Your task to perform on an android device: Open Wikipedia Image 0: 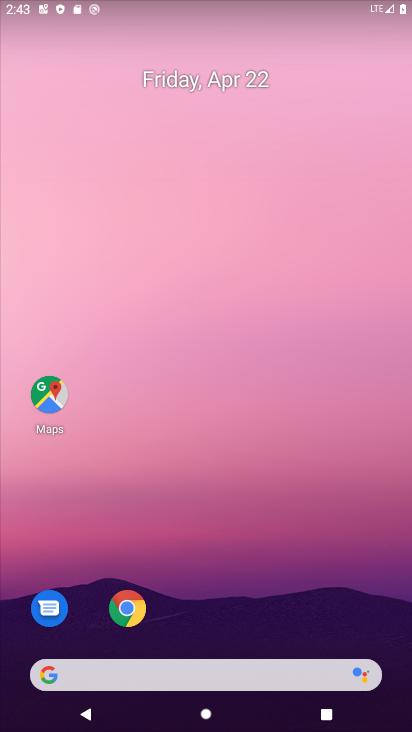
Step 0: drag from (272, 698) to (286, 162)
Your task to perform on an android device: Open Wikipedia Image 1: 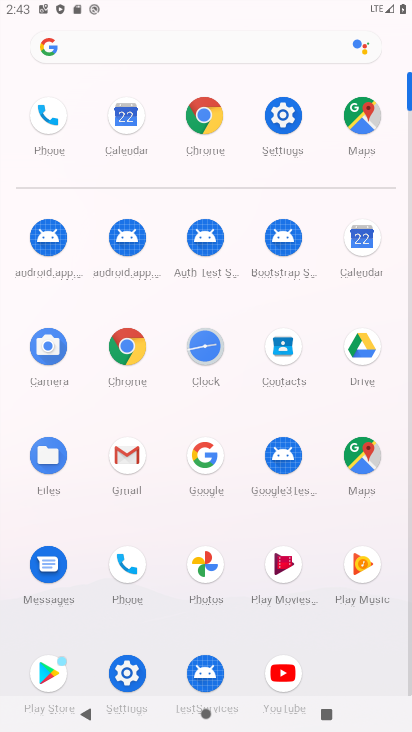
Step 1: click (198, 112)
Your task to perform on an android device: Open Wikipedia Image 2: 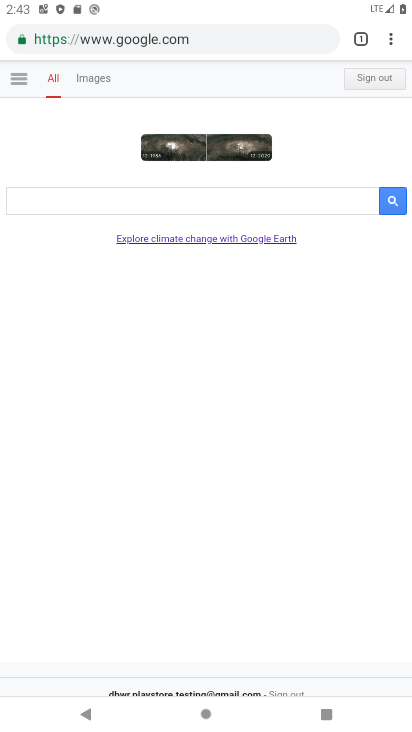
Step 2: click (390, 49)
Your task to perform on an android device: Open Wikipedia Image 3: 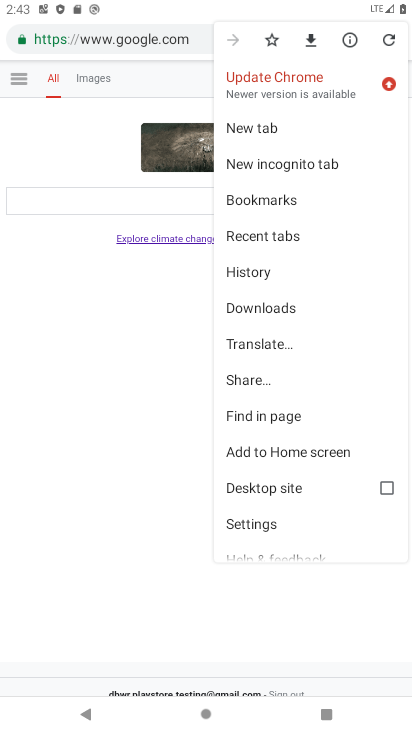
Step 3: click (115, 207)
Your task to perform on an android device: Open Wikipedia Image 4: 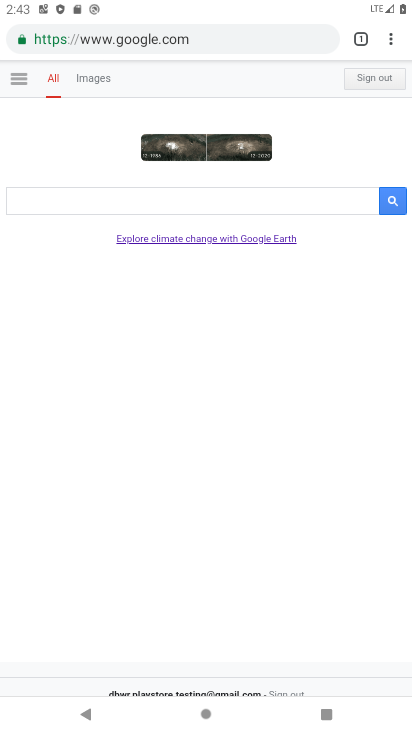
Step 4: click (115, 207)
Your task to perform on an android device: Open Wikipedia Image 5: 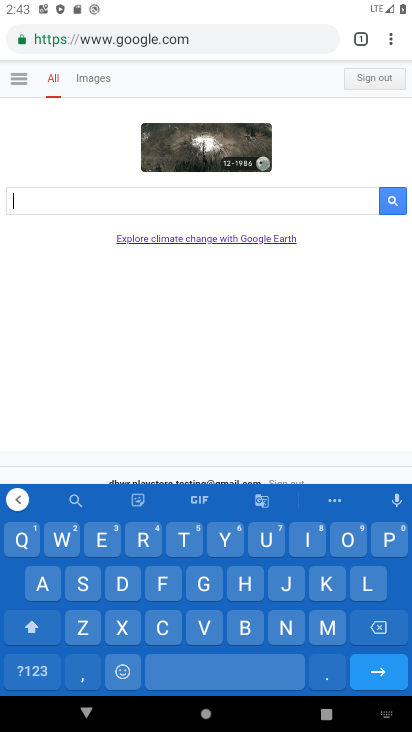
Step 5: click (61, 546)
Your task to perform on an android device: Open Wikipedia Image 6: 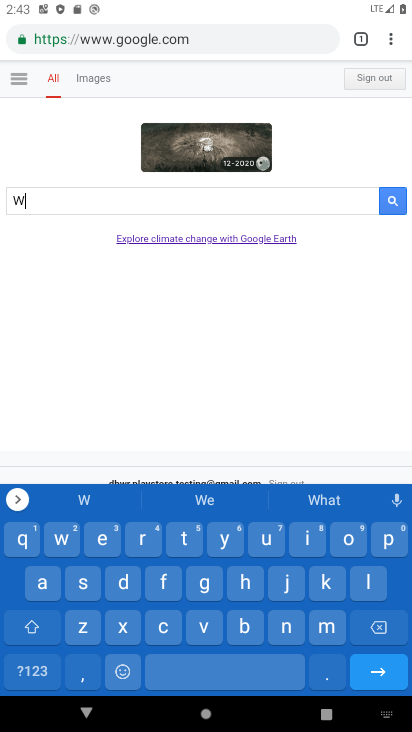
Step 6: click (309, 539)
Your task to perform on an android device: Open Wikipedia Image 7: 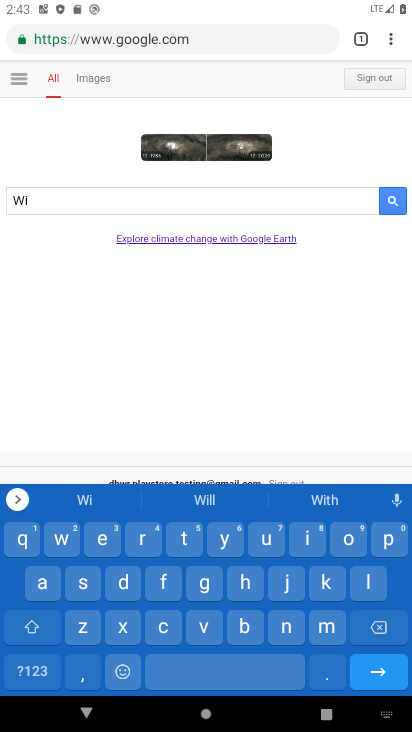
Step 7: click (330, 587)
Your task to perform on an android device: Open Wikipedia Image 8: 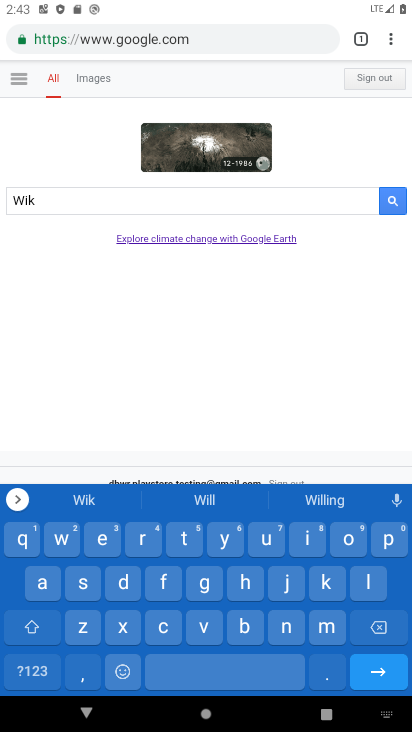
Step 8: click (313, 539)
Your task to perform on an android device: Open Wikipedia Image 9: 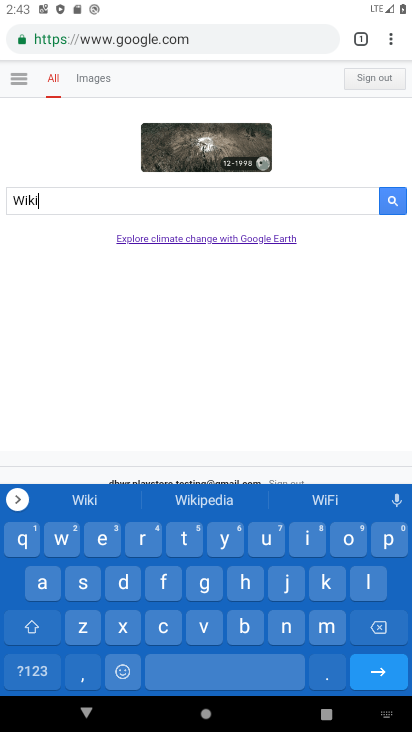
Step 9: click (205, 500)
Your task to perform on an android device: Open Wikipedia Image 10: 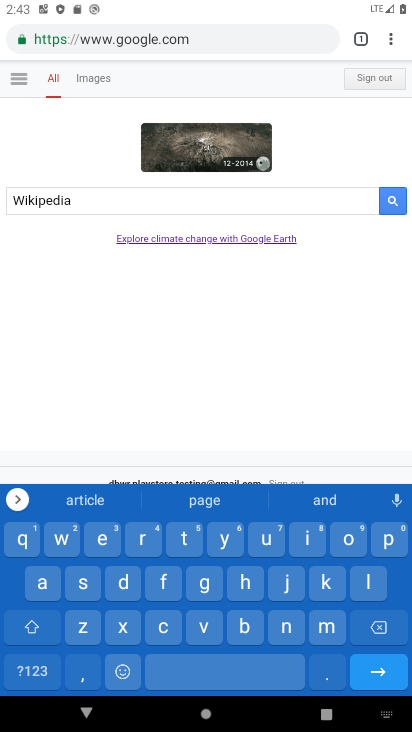
Step 10: click (389, 205)
Your task to perform on an android device: Open Wikipedia Image 11: 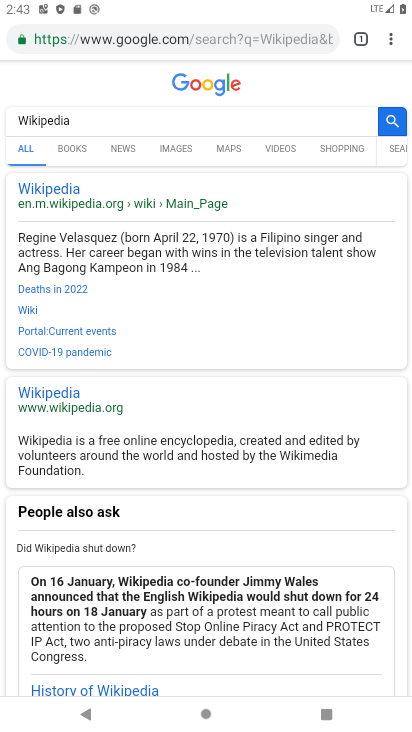
Step 11: click (75, 194)
Your task to perform on an android device: Open Wikipedia Image 12: 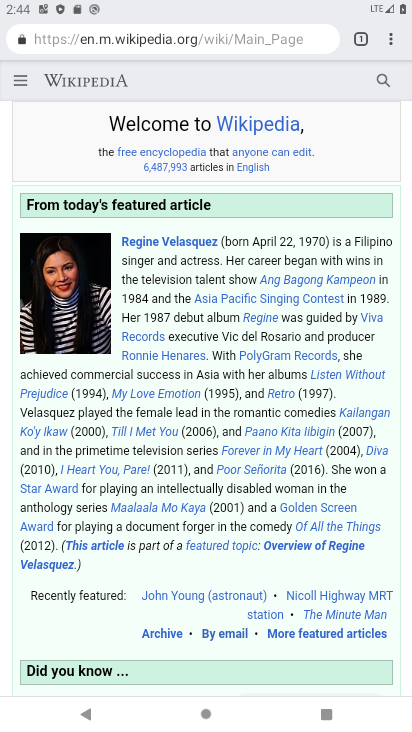
Step 12: task complete